Your task to perform on an android device: Open accessibility settings Image 0: 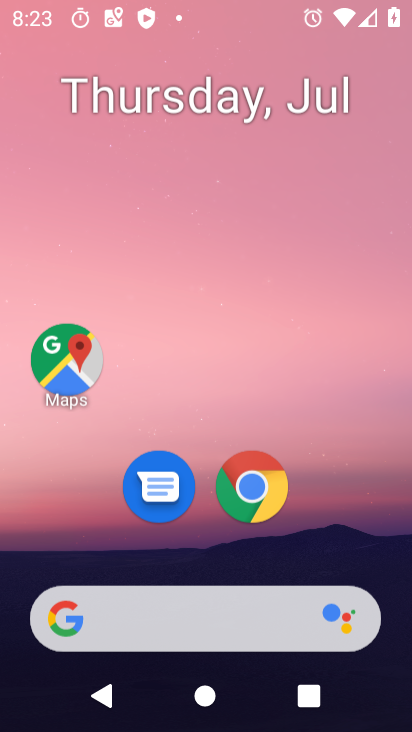
Step 0: click (244, 286)
Your task to perform on an android device: Open accessibility settings Image 1: 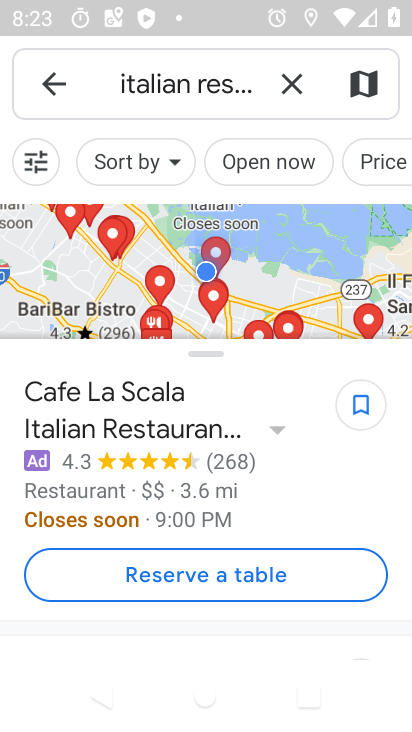
Step 1: press home button
Your task to perform on an android device: Open accessibility settings Image 2: 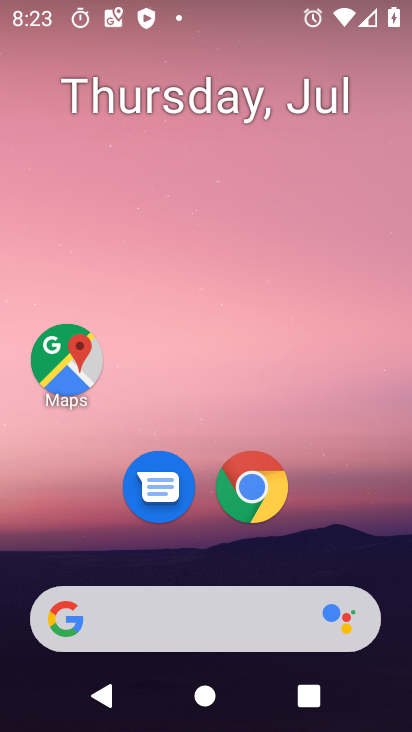
Step 2: drag from (209, 574) to (227, 98)
Your task to perform on an android device: Open accessibility settings Image 3: 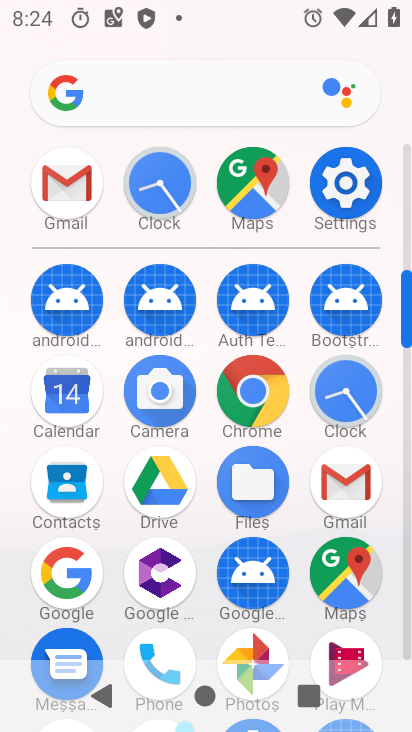
Step 3: click (356, 197)
Your task to perform on an android device: Open accessibility settings Image 4: 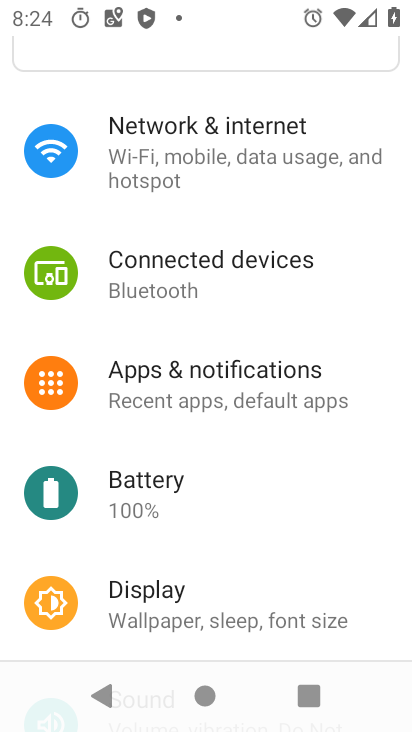
Step 4: drag from (218, 541) to (271, 230)
Your task to perform on an android device: Open accessibility settings Image 5: 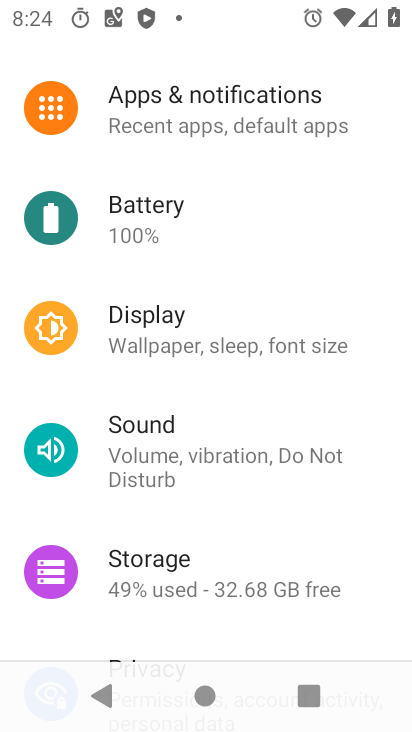
Step 5: drag from (261, 522) to (306, 186)
Your task to perform on an android device: Open accessibility settings Image 6: 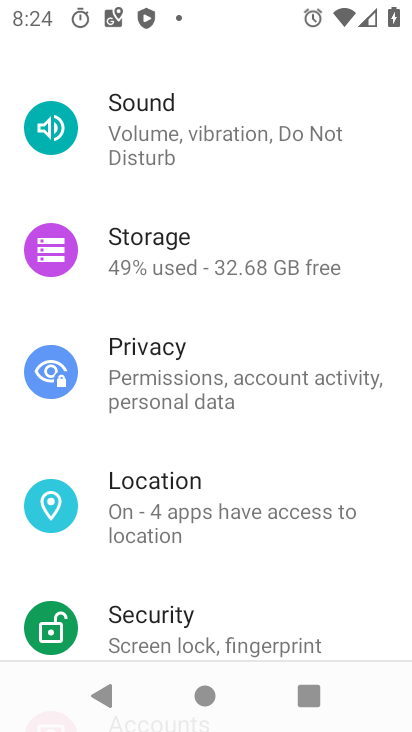
Step 6: drag from (251, 597) to (278, 218)
Your task to perform on an android device: Open accessibility settings Image 7: 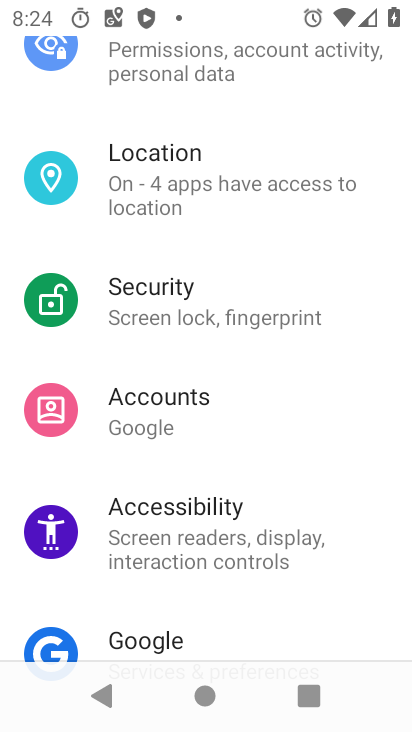
Step 7: click (212, 552)
Your task to perform on an android device: Open accessibility settings Image 8: 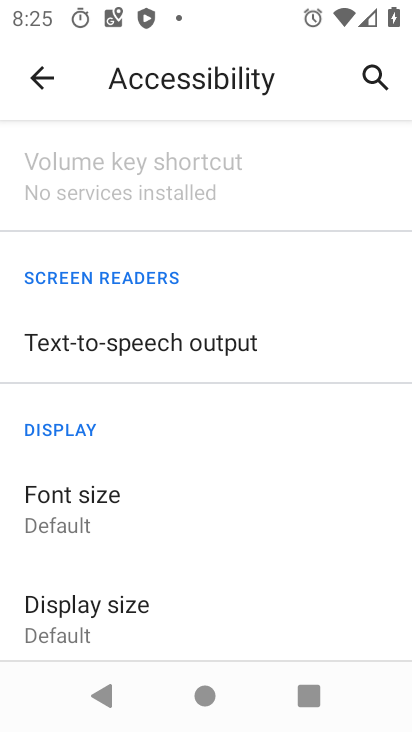
Step 8: task complete